Your task to perform on an android device: Go to Amazon Image 0: 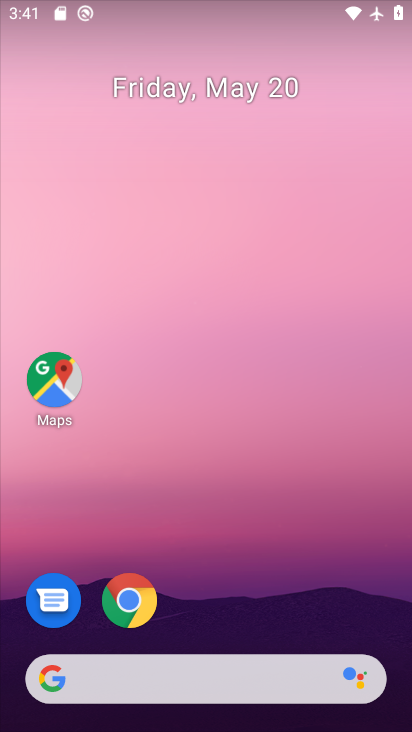
Step 0: drag from (294, 526) to (145, 2)
Your task to perform on an android device: Go to Amazon Image 1: 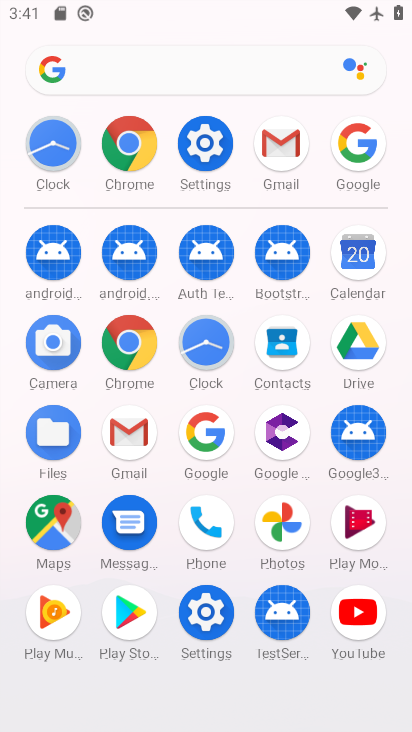
Step 1: click (137, 145)
Your task to perform on an android device: Go to Amazon Image 2: 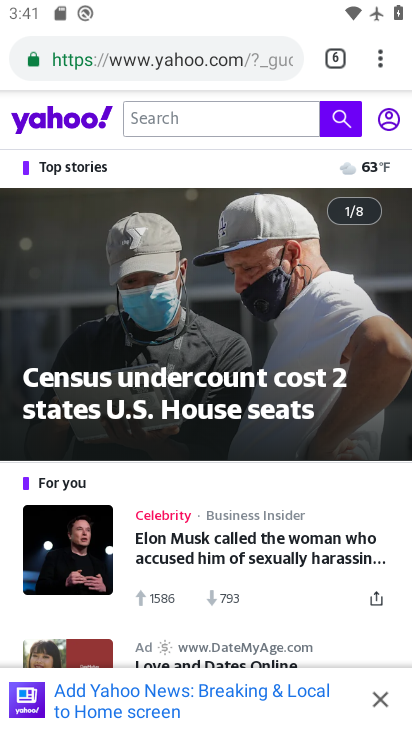
Step 2: click (329, 60)
Your task to perform on an android device: Go to Amazon Image 3: 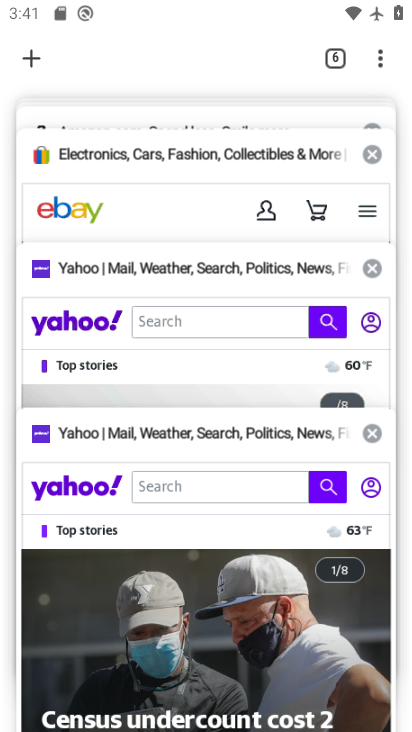
Step 3: drag from (180, 132) to (160, 594)
Your task to perform on an android device: Go to Amazon Image 4: 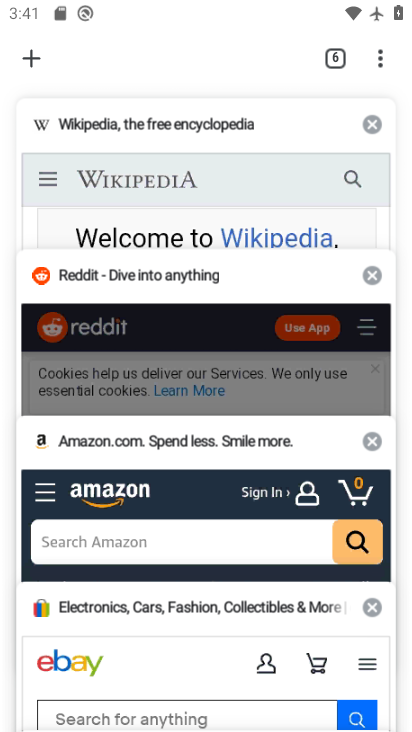
Step 4: click (138, 456)
Your task to perform on an android device: Go to Amazon Image 5: 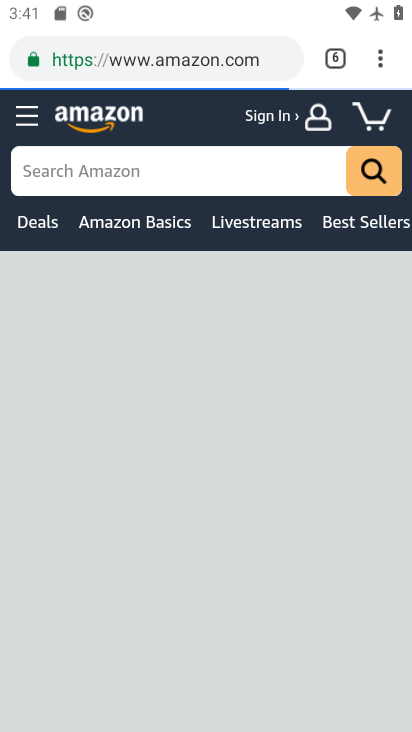
Step 5: task complete